Your task to perform on an android device: Who is the president of the United States? Image 0: 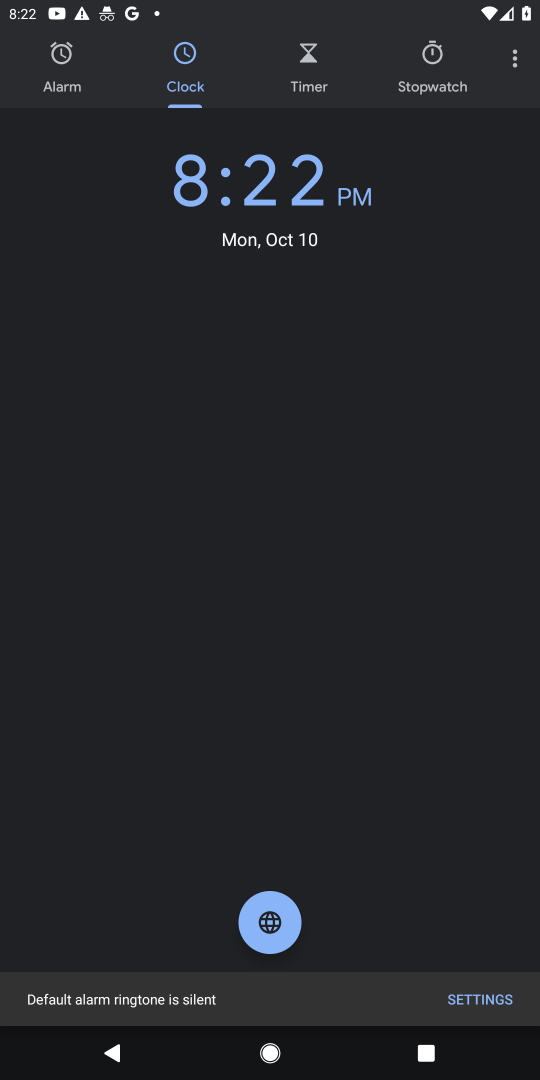
Step 0: press home button
Your task to perform on an android device: Who is the president of the United States? Image 1: 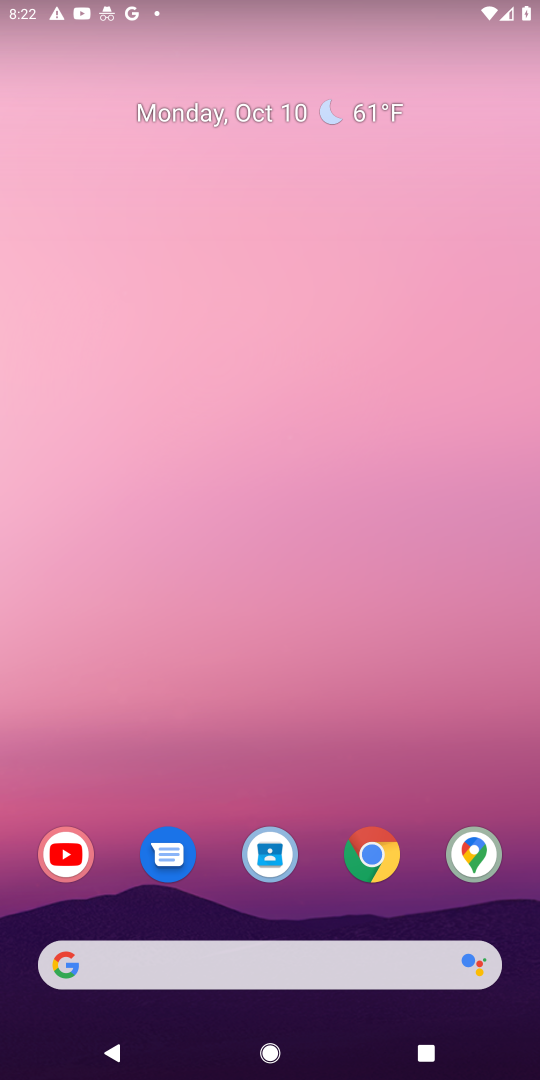
Step 1: click (366, 868)
Your task to perform on an android device: Who is the president of the United States? Image 2: 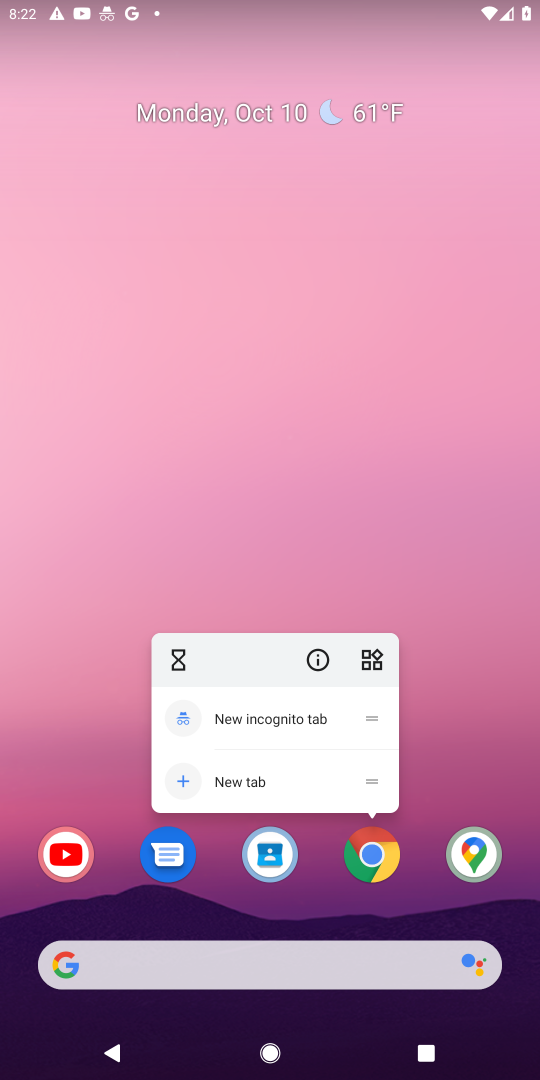
Step 2: click (382, 855)
Your task to perform on an android device: Who is the president of the United States? Image 3: 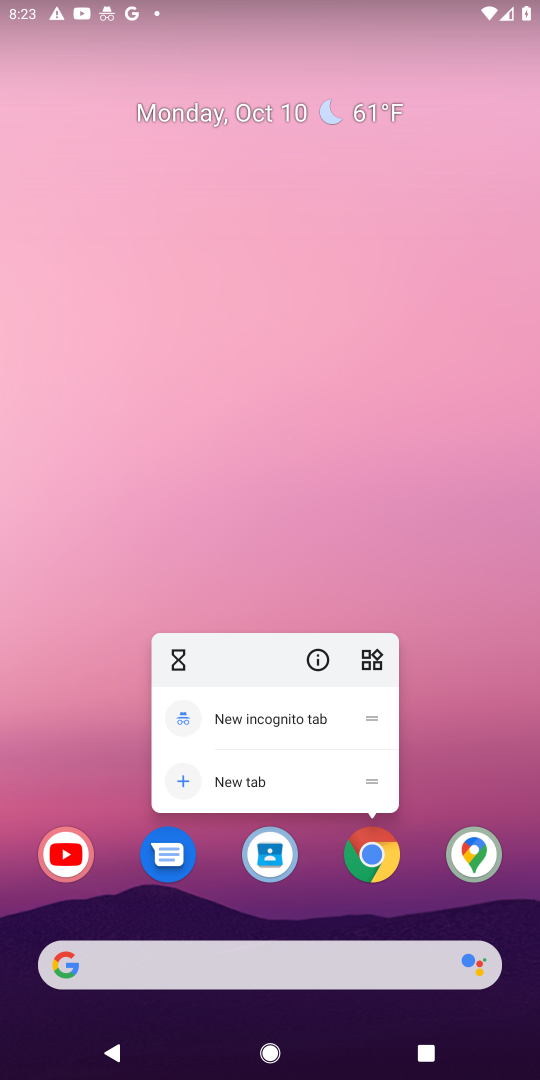
Step 3: click (372, 865)
Your task to perform on an android device: Who is the president of the United States? Image 4: 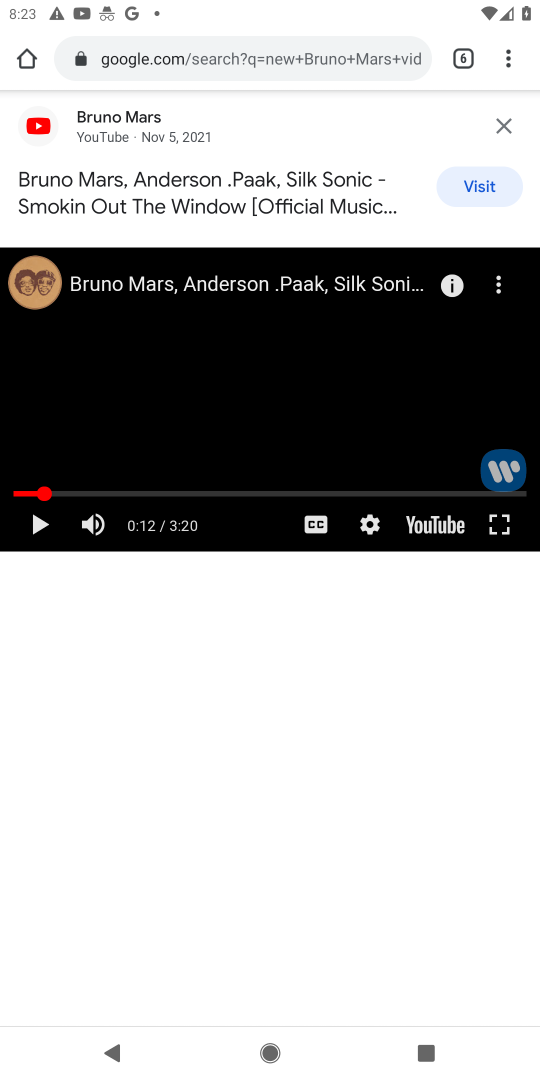
Step 4: click (321, 49)
Your task to perform on an android device: Who is the president of the United States? Image 5: 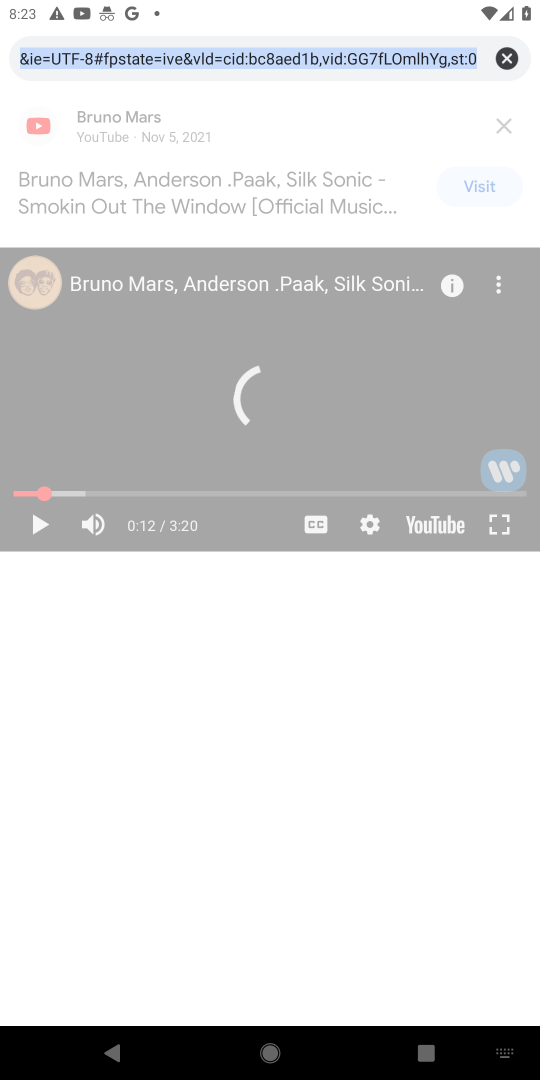
Step 5: click (497, 57)
Your task to perform on an android device: Who is the president of the United States? Image 6: 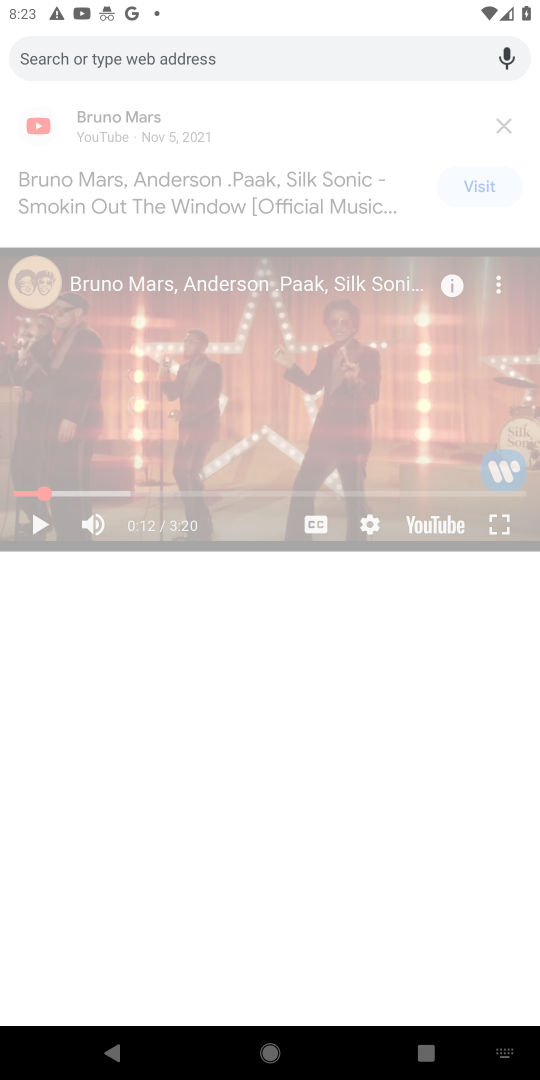
Step 6: type " president of the United States"
Your task to perform on an android device: Who is the president of the United States? Image 7: 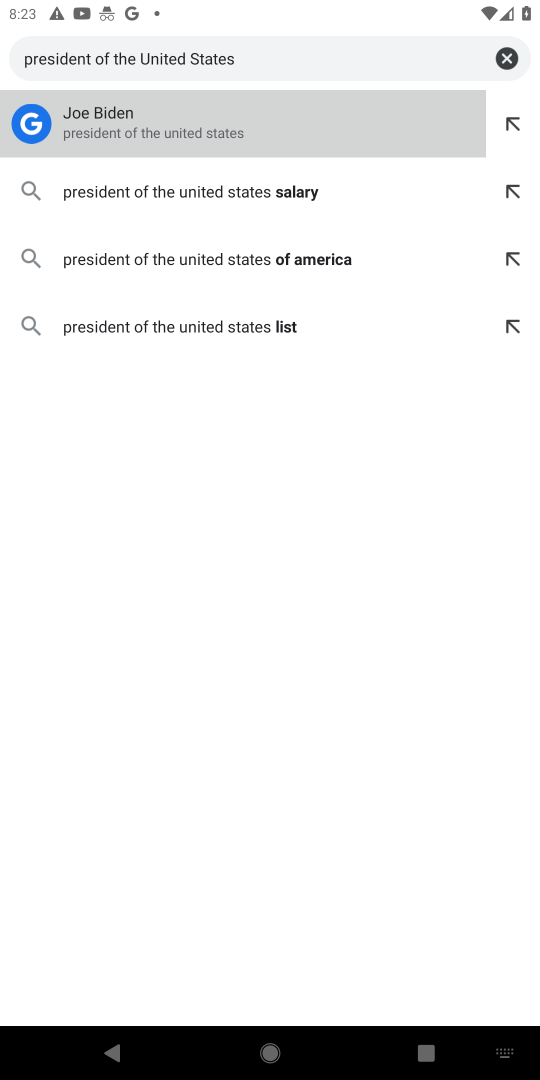
Step 7: click (138, 133)
Your task to perform on an android device: Who is the president of the United States? Image 8: 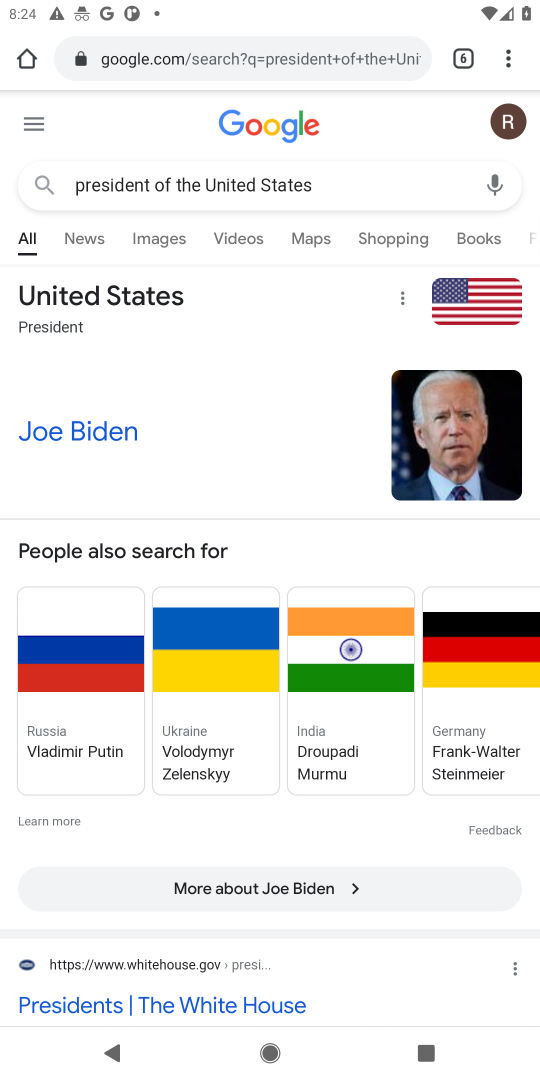
Step 8: task complete